Your task to perform on an android device: open device folders in google photos Image 0: 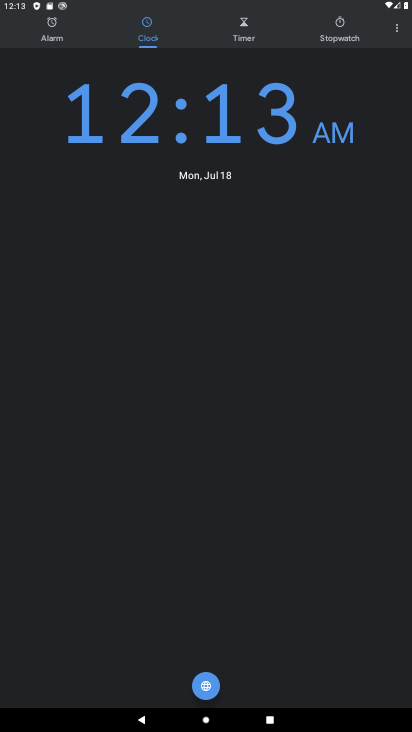
Step 0: press home button
Your task to perform on an android device: open device folders in google photos Image 1: 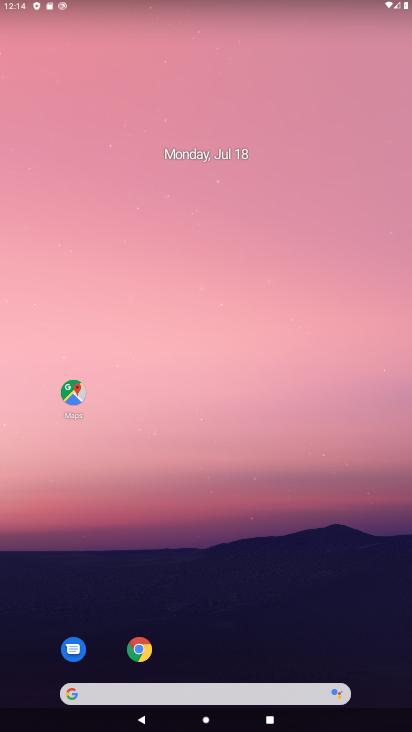
Step 1: drag from (80, 620) to (195, 341)
Your task to perform on an android device: open device folders in google photos Image 2: 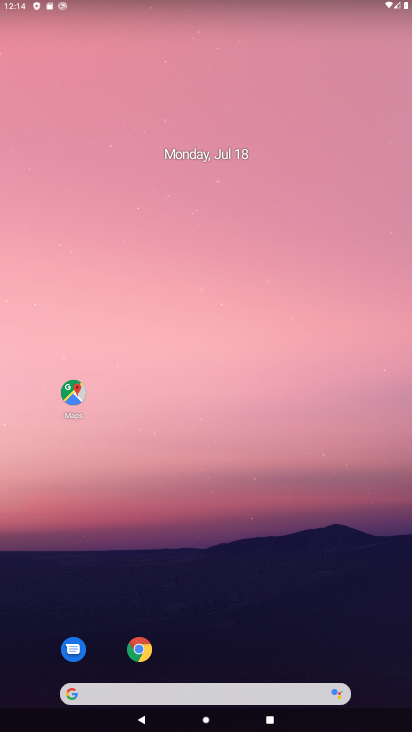
Step 2: drag from (30, 706) to (281, 19)
Your task to perform on an android device: open device folders in google photos Image 3: 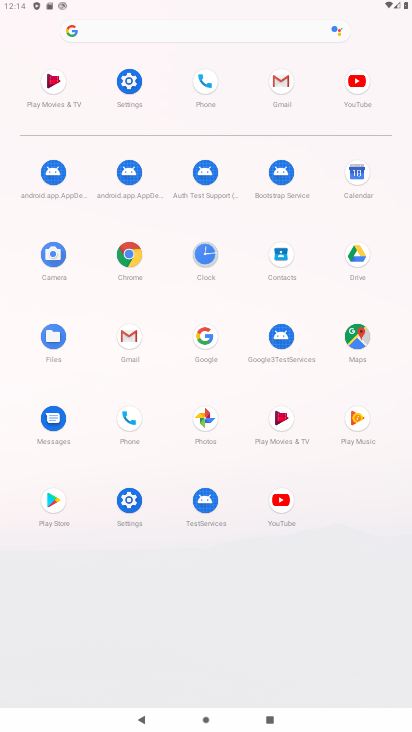
Step 3: click (210, 418)
Your task to perform on an android device: open device folders in google photos Image 4: 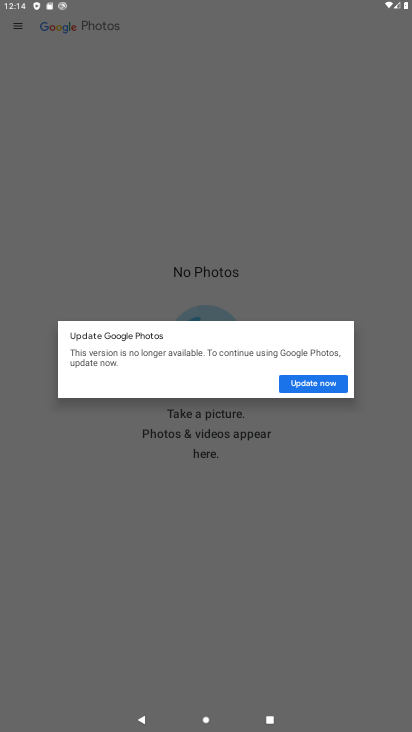
Step 4: click (296, 379)
Your task to perform on an android device: open device folders in google photos Image 5: 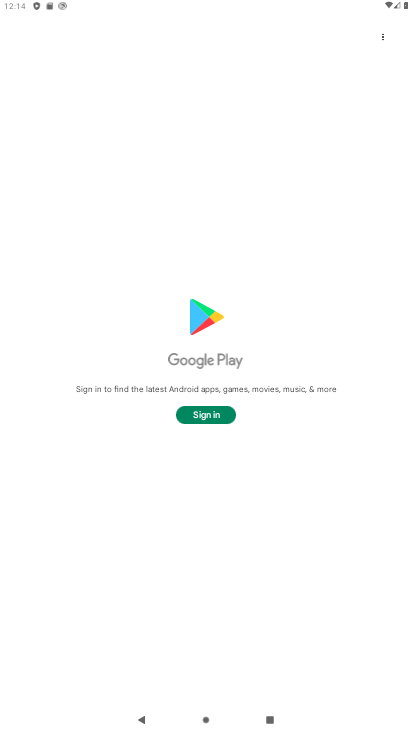
Step 5: click (215, 418)
Your task to perform on an android device: open device folders in google photos Image 6: 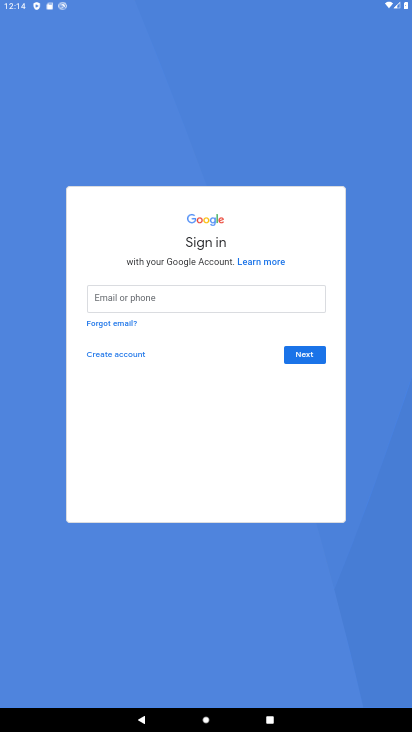
Step 6: task complete